Your task to perform on an android device: Go to settings Image 0: 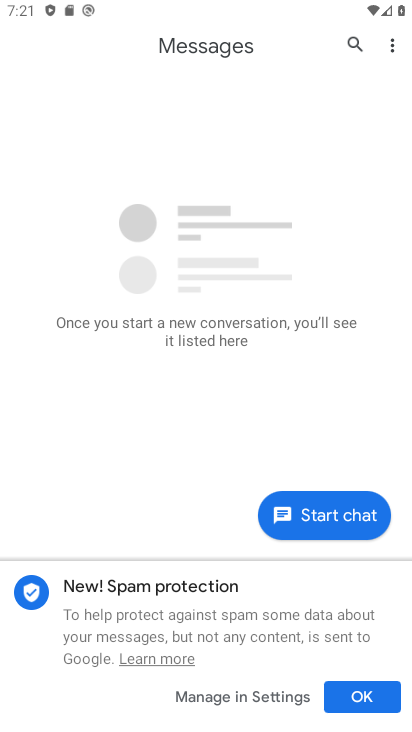
Step 0: press home button
Your task to perform on an android device: Go to settings Image 1: 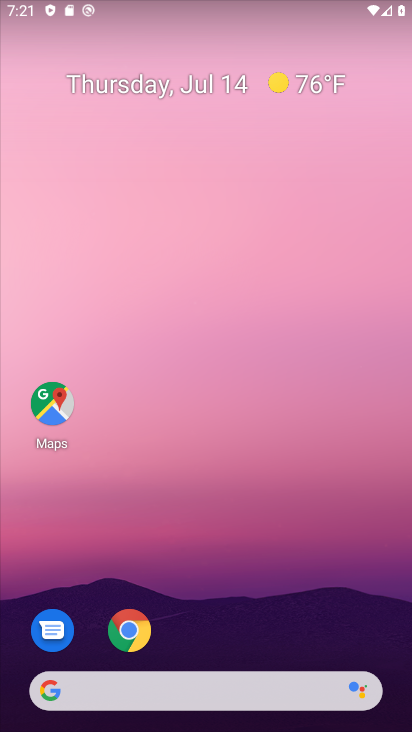
Step 1: drag from (225, 658) to (274, 276)
Your task to perform on an android device: Go to settings Image 2: 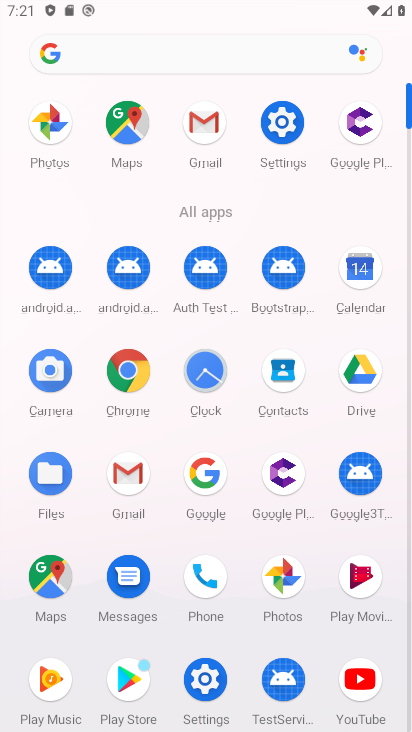
Step 2: click (289, 124)
Your task to perform on an android device: Go to settings Image 3: 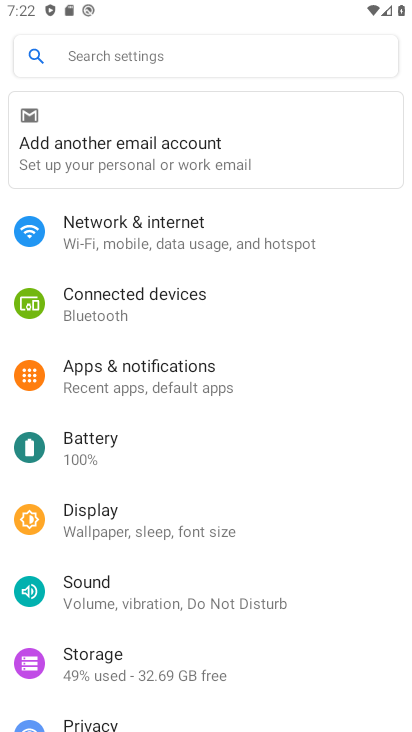
Step 3: task complete